Your task to perform on an android device: Search for Italian restaurants on Maps Image 0: 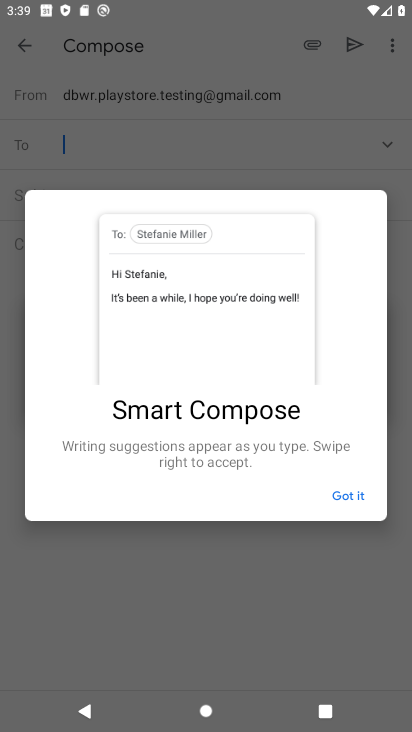
Step 0: press home button
Your task to perform on an android device: Search for Italian restaurants on Maps Image 1: 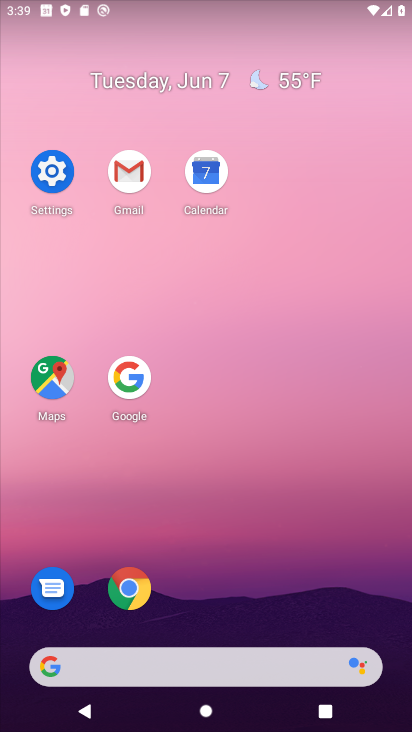
Step 1: click (48, 372)
Your task to perform on an android device: Search for Italian restaurants on Maps Image 2: 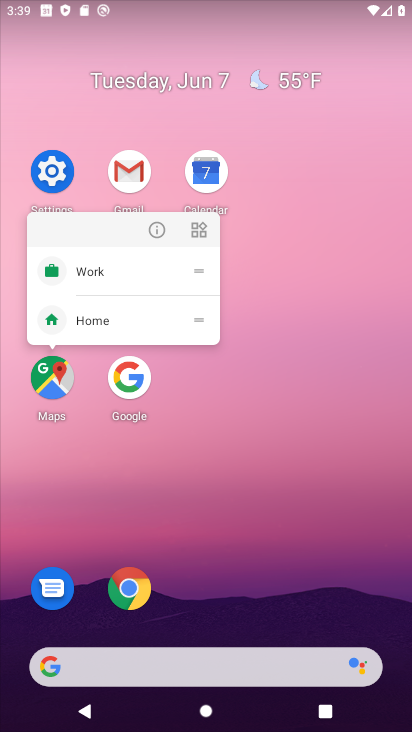
Step 2: click (61, 370)
Your task to perform on an android device: Search for Italian restaurants on Maps Image 3: 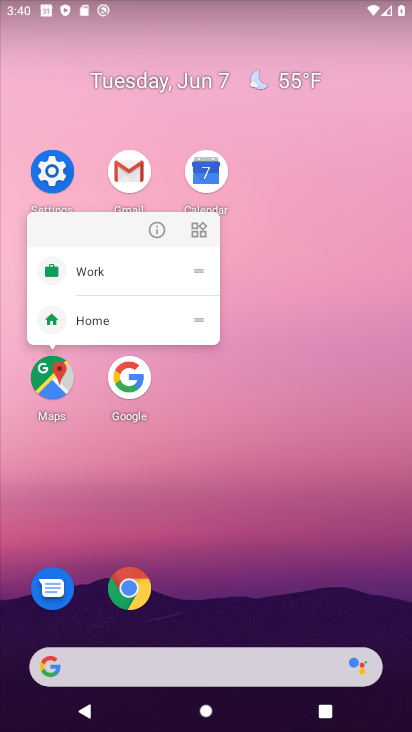
Step 3: click (66, 379)
Your task to perform on an android device: Search for Italian restaurants on Maps Image 4: 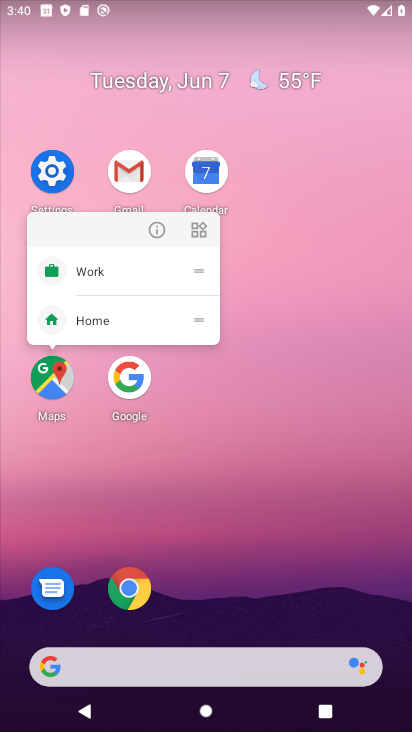
Step 4: click (51, 394)
Your task to perform on an android device: Search for Italian restaurants on Maps Image 5: 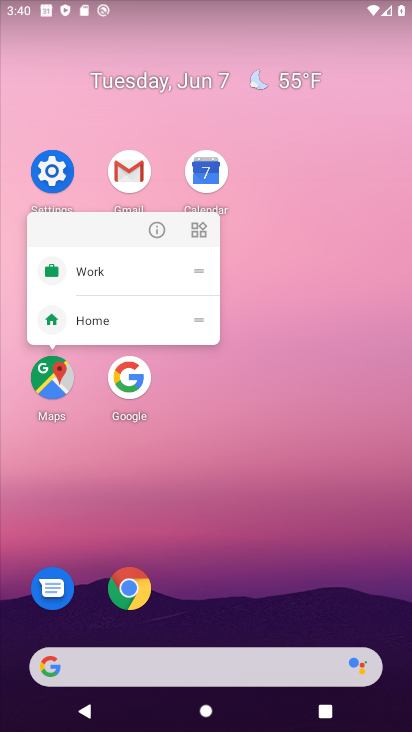
Step 5: click (51, 394)
Your task to perform on an android device: Search for Italian restaurants on Maps Image 6: 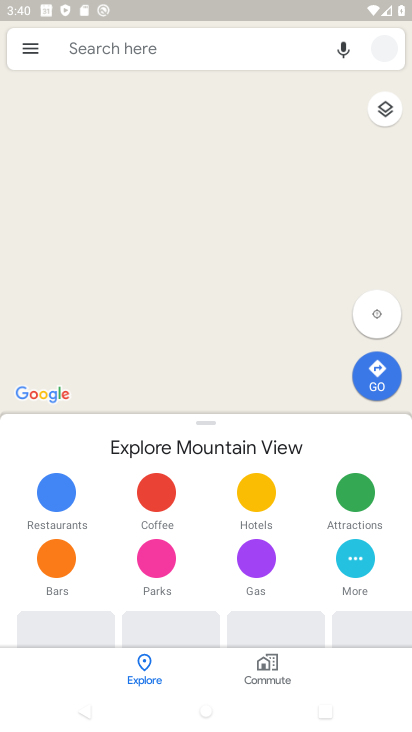
Step 6: click (169, 40)
Your task to perform on an android device: Search for Italian restaurants on Maps Image 7: 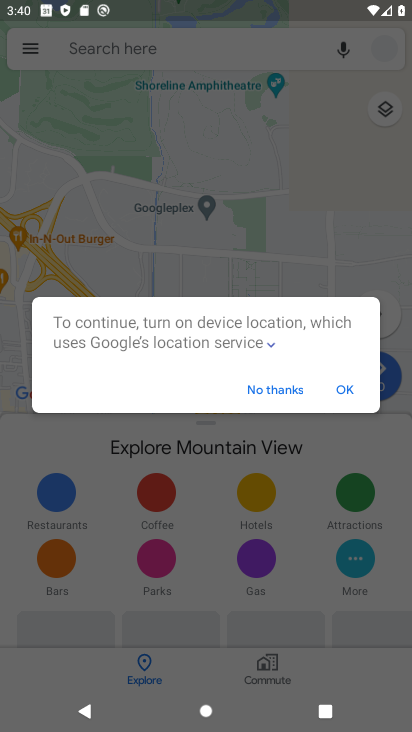
Step 7: click (338, 384)
Your task to perform on an android device: Search for Italian restaurants on Maps Image 8: 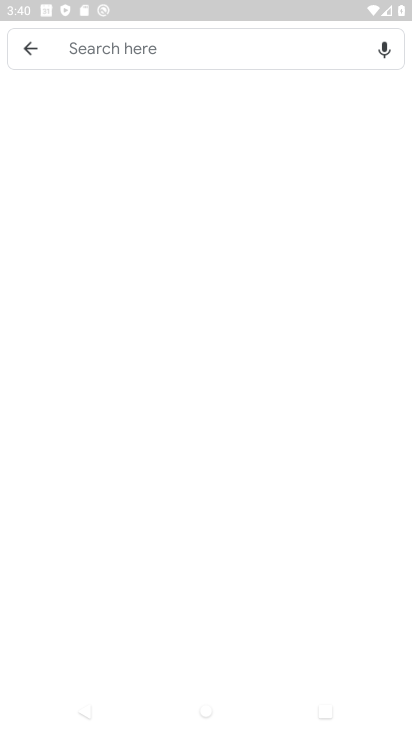
Step 8: click (200, 52)
Your task to perform on an android device: Search for Italian restaurants on Maps Image 9: 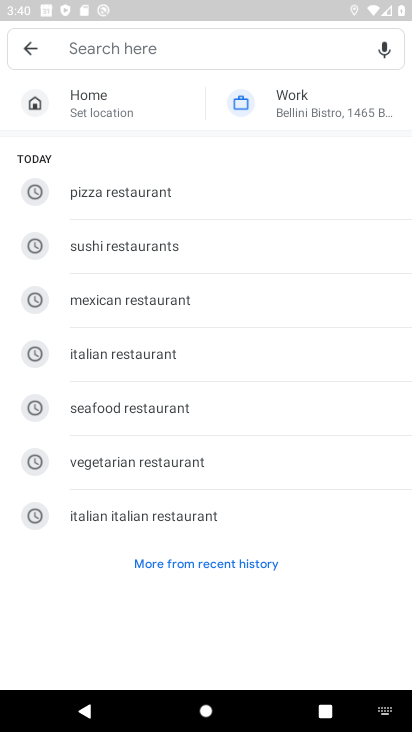
Step 9: click (216, 352)
Your task to perform on an android device: Search for Italian restaurants on Maps Image 10: 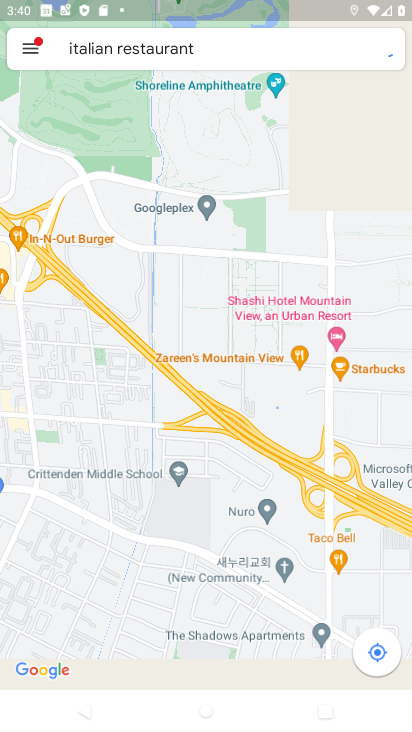
Step 10: task complete